Your task to perform on an android device: Is it going to rain today? Image 0: 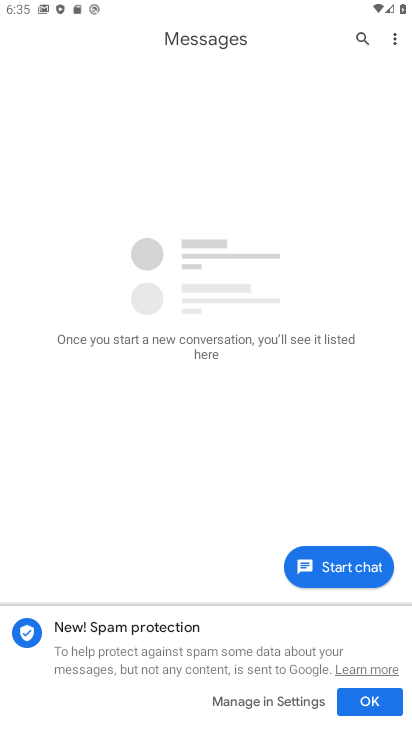
Step 0: press home button
Your task to perform on an android device: Is it going to rain today? Image 1: 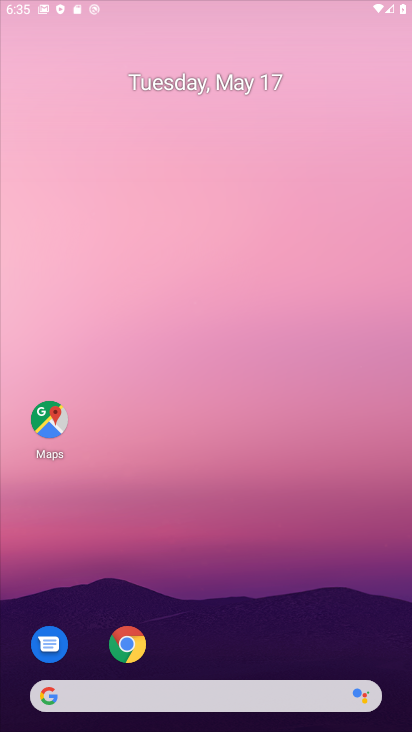
Step 1: drag from (390, 622) to (322, 32)
Your task to perform on an android device: Is it going to rain today? Image 2: 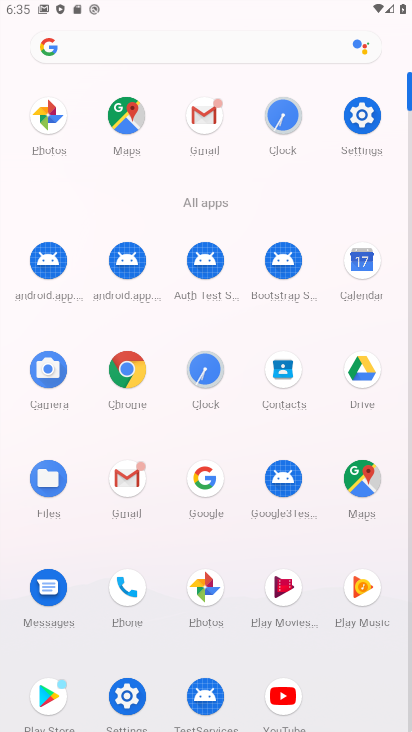
Step 2: click (207, 490)
Your task to perform on an android device: Is it going to rain today? Image 3: 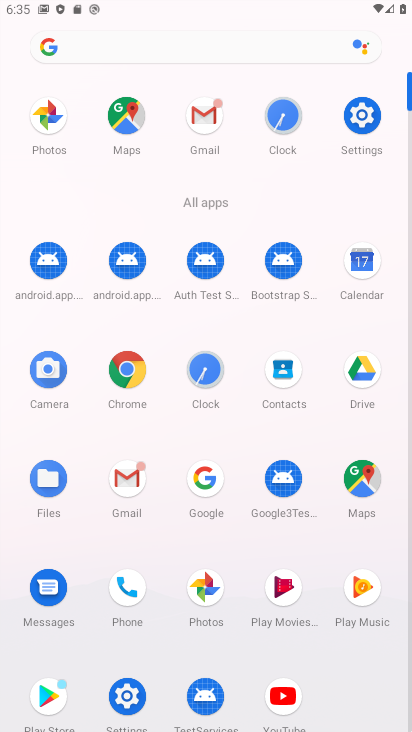
Step 3: click (202, 465)
Your task to perform on an android device: Is it going to rain today? Image 4: 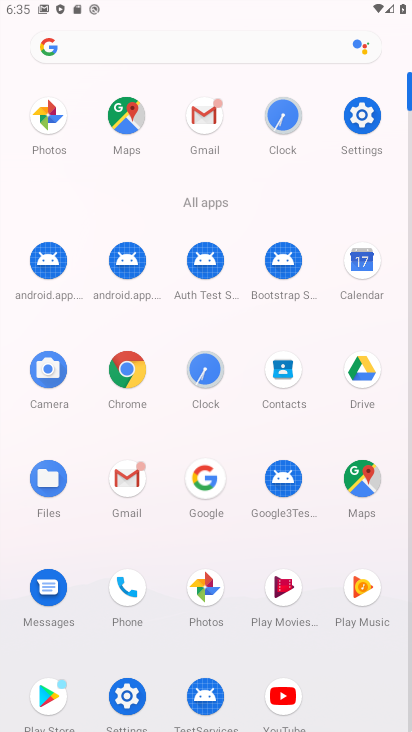
Step 4: click (202, 481)
Your task to perform on an android device: Is it going to rain today? Image 5: 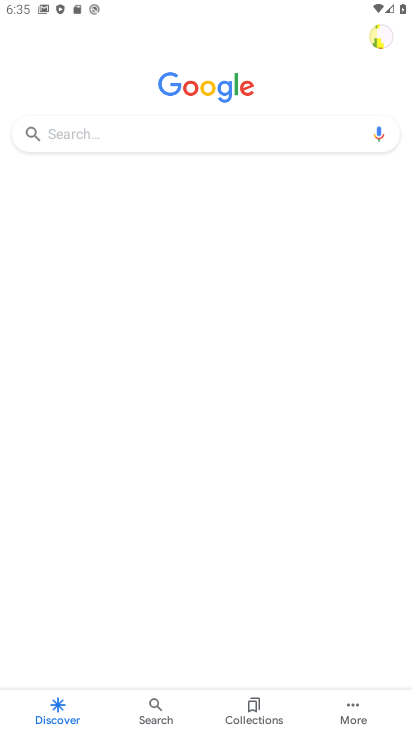
Step 5: click (153, 134)
Your task to perform on an android device: Is it going to rain today? Image 6: 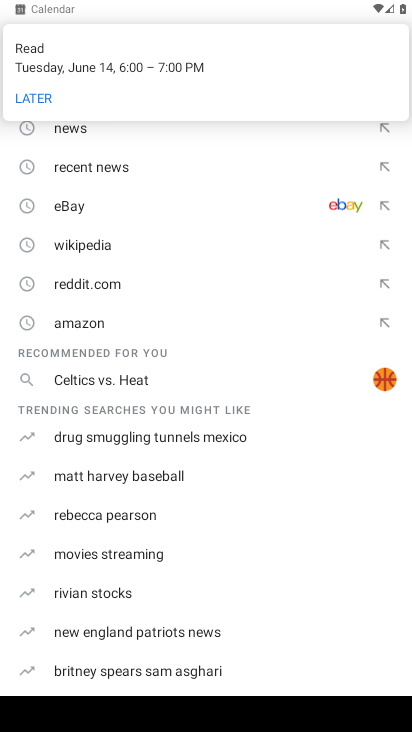
Step 6: drag from (103, 537) to (128, 243)
Your task to perform on an android device: Is it going to rain today? Image 7: 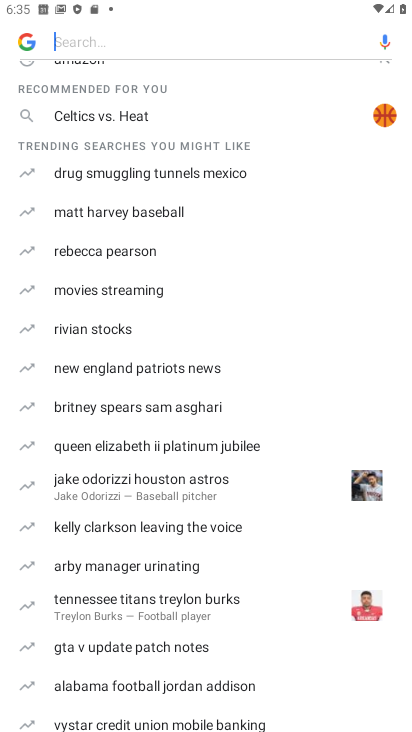
Step 7: drag from (99, 574) to (196, 220)
Your task to perform on an android device: Is it going to rain today? Image 8: 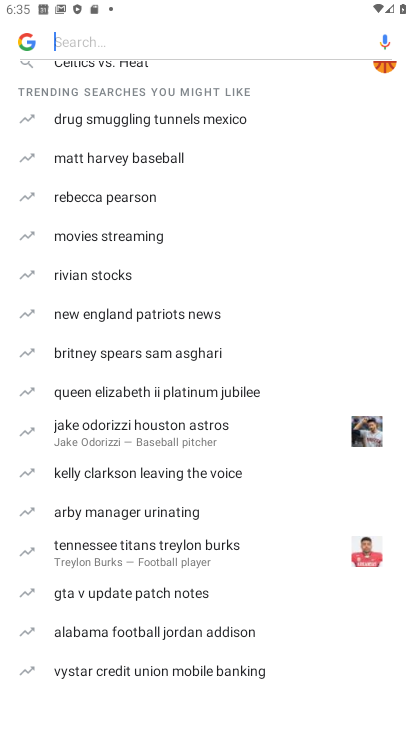
Step 8: drag from (192, 205) to (135, 705)
Your task to perform on an android device: Is it going to rain today? Image 9: 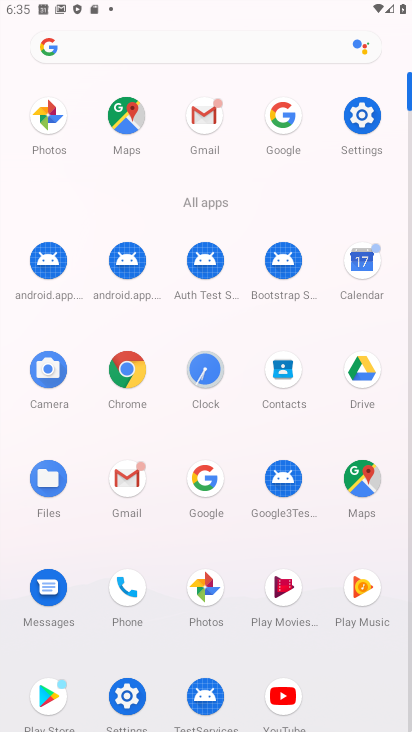
Step 9: click (207, 485)
Your task to perform on an android device: Is it going to rain today? Image 10: 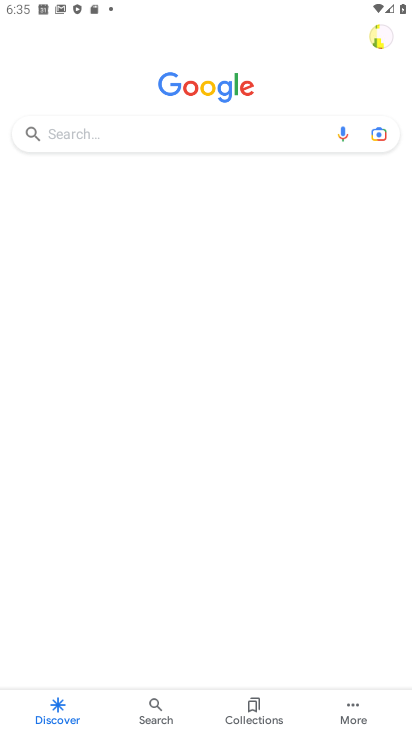
Step 10: click (159, 131)
Your task to perform on an android device: Is it going to rain today? Image 11: 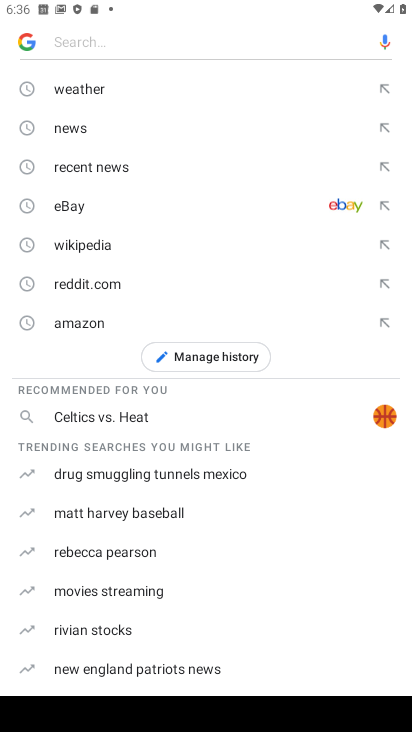
Step 11: type "Is it going to rain today?"
Your task to perform on an android device: Is it going to rain today? Image 12: 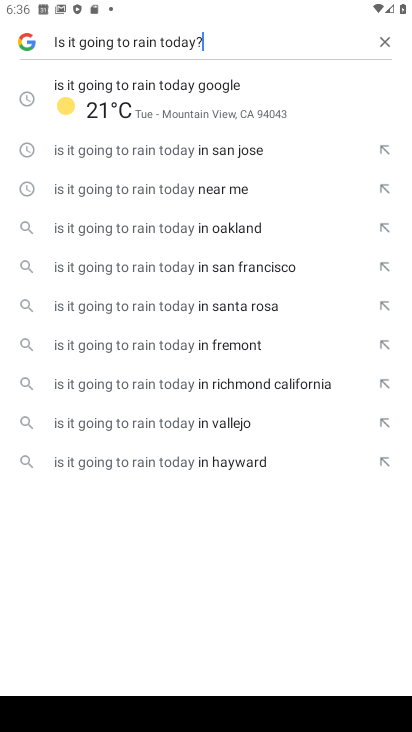
Step 12: click (160, 81)
Your task to perform on an android device: Is it going to rain today? Image 13: 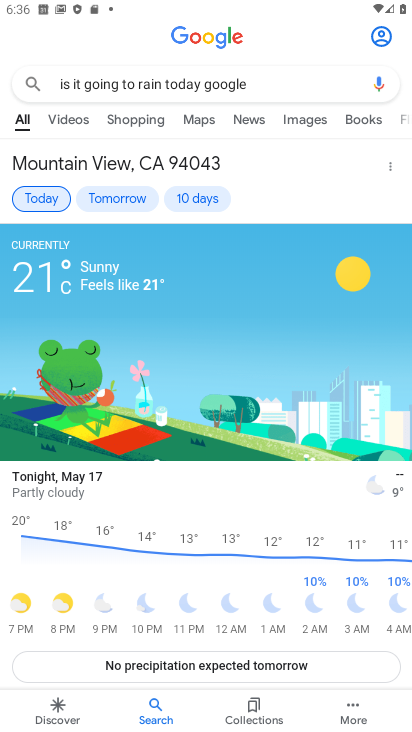
Step 13: task complete